Your task to perform on an android device: Open calendar and show me the second week of next month Image 0: 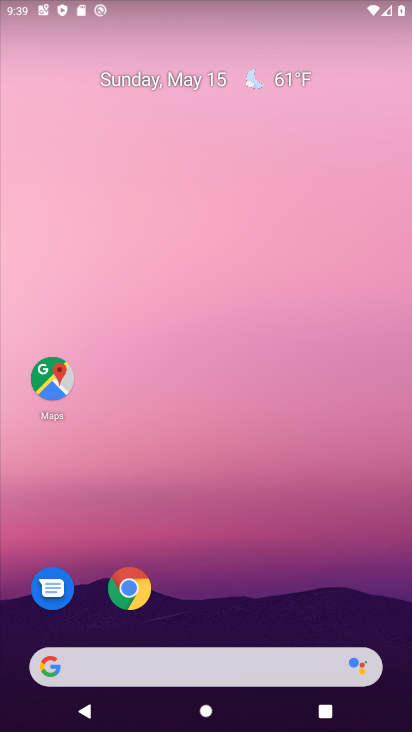
Step 0: drag from (264, 605) to (309, 76)
Your task to perform on an android device: Open calendar and show me the second week of next month Image 1: 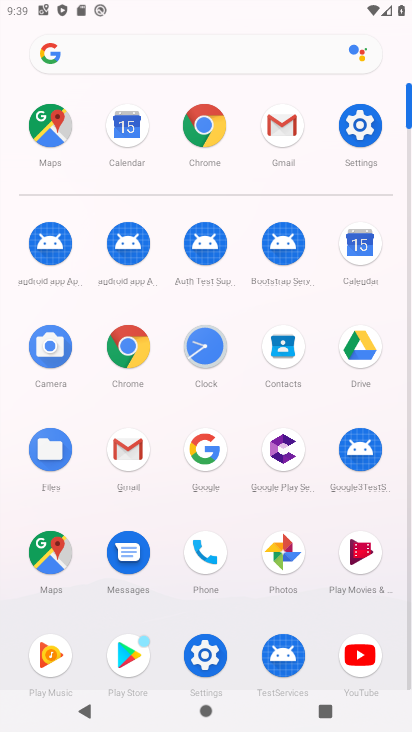
Step 1: click (353, 247)
Your task to perform on an android device: Open calendar and show me the second week of next month Image 2: 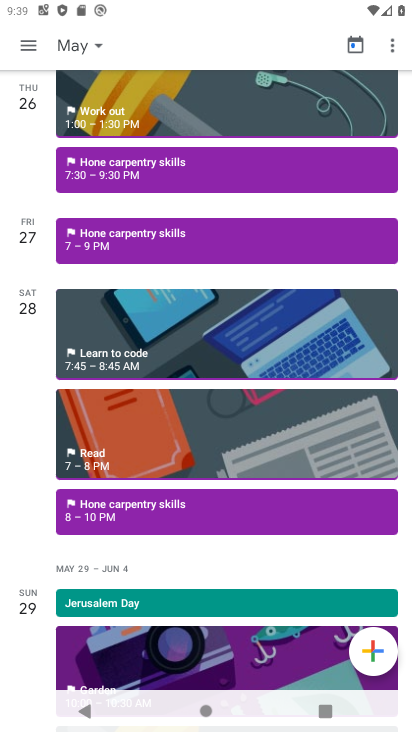
Step 2: click (19, 44)
Your task to perform on an android device: Open calendar and show me the second week of next month Image 3: 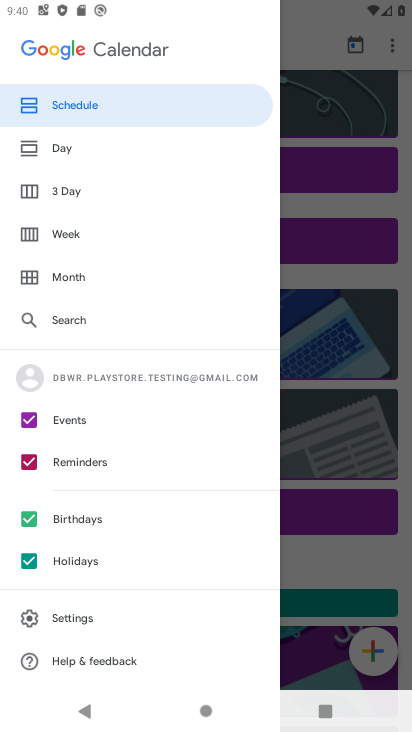
Step 3: click (73, 235)
Your task to perform on an android device: Open calendar and show me the second week of next month Image 4: 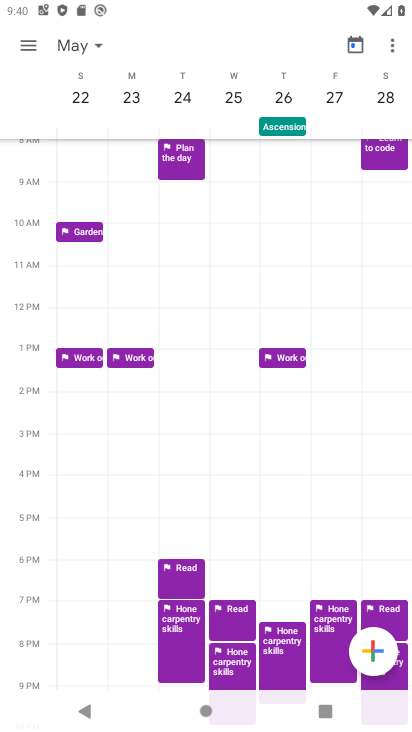
Step 4: task complete